Your task to perform on an android device: Open wifi settings Image 0: 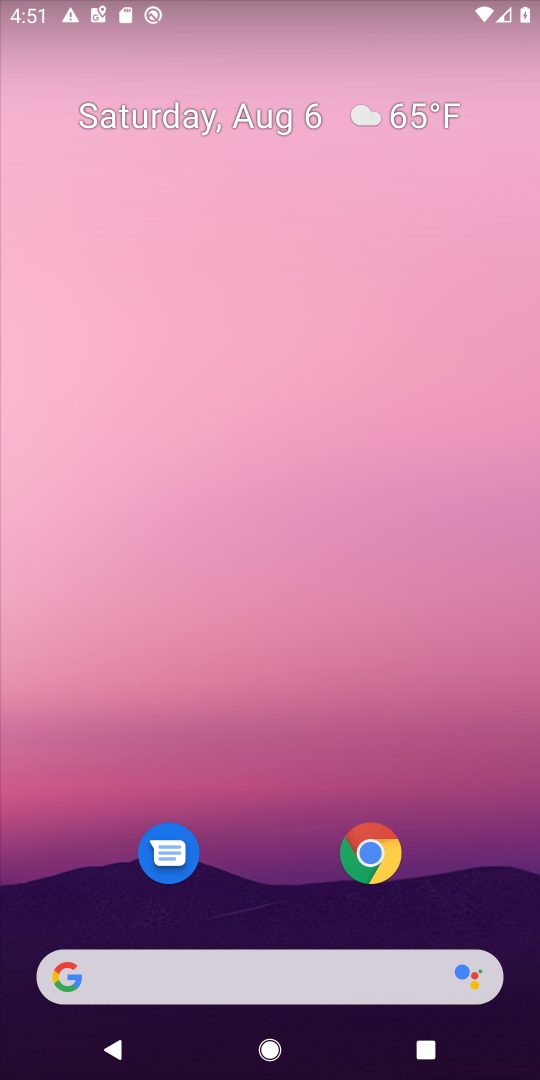
Step 0: drag from (160, 12) to (202, 798)
Your task to perform on an android device: Open wifi settings Image 1: 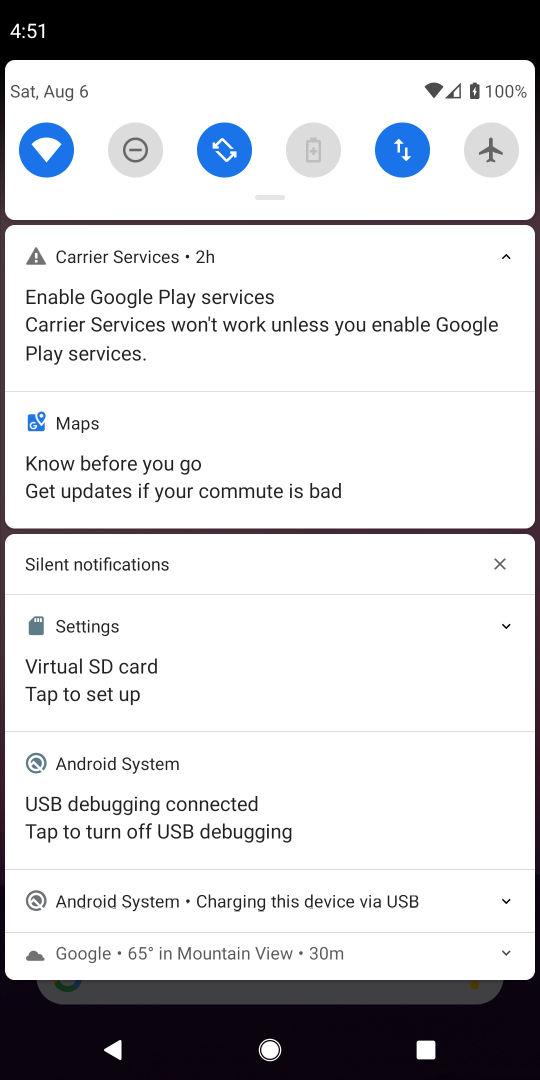
Step 1: click (54, 150)
Your task to perform on an android device: Open wifi settings Image 2: 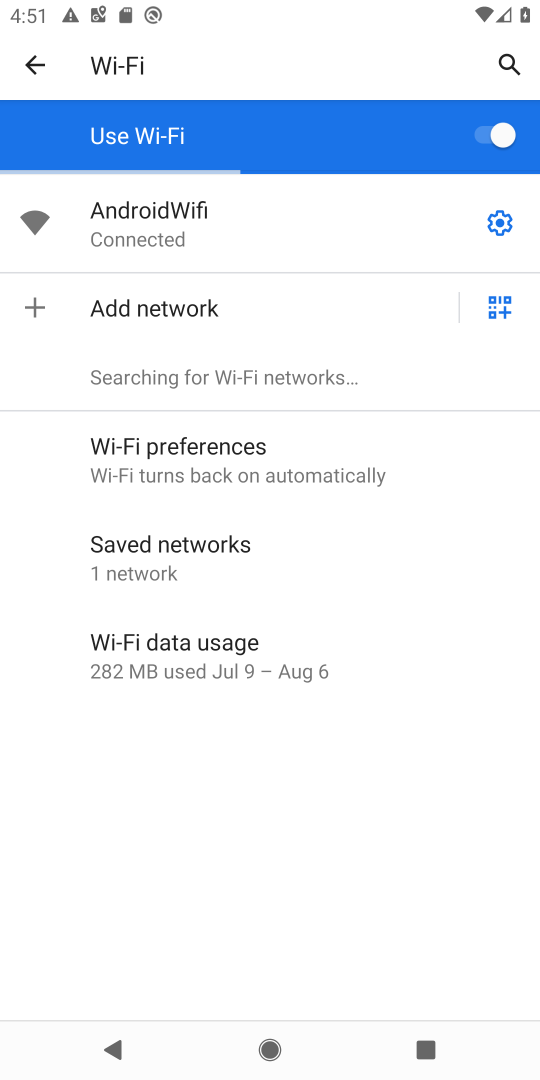
Step 2: task complete